Your task to perform on an android device: turn off priority inbox in the gmail app Image 0: 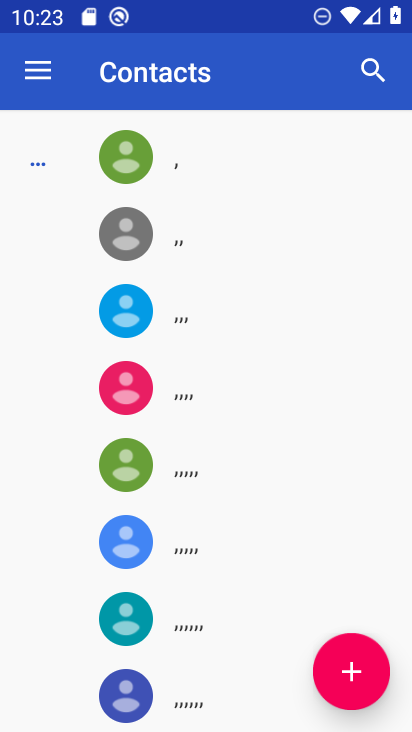
Step 0: press home button
Your task to perform on an android device: turn off priority inbox in the gmail app Image 1: 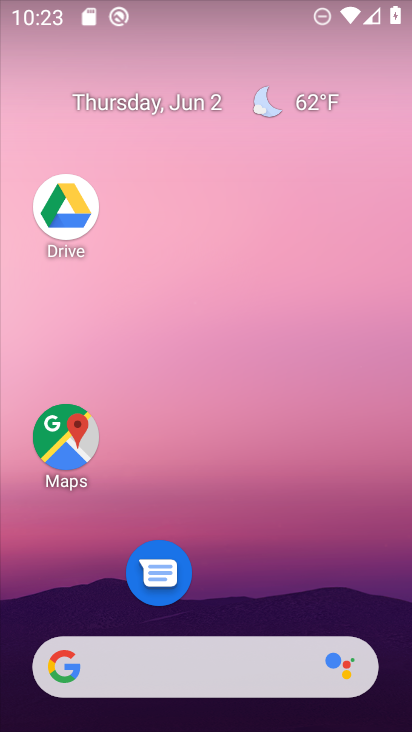
Step 1: drag from (217, 647) to (139, 36)
Your task to perform on an android device: turn off priority inbox in the gmail app Image 2: 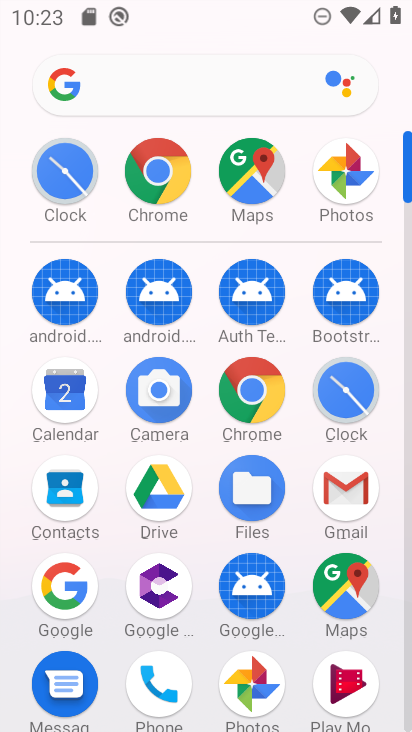
Step 2: click (355, 493)
Your task to perform on an android device: turn off priority inbox in the gmail app Image 3: 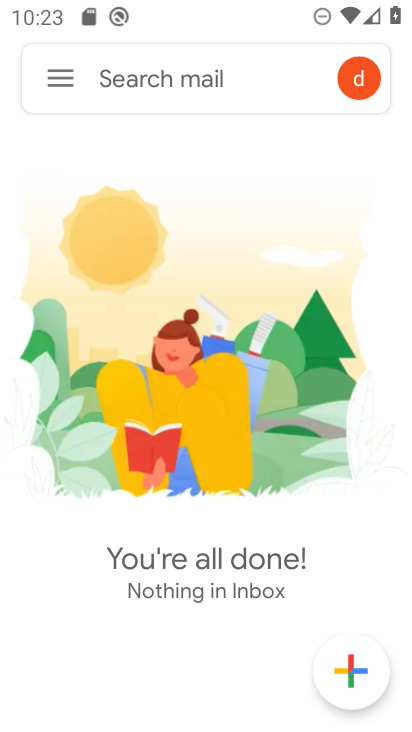
Step 3: click (54, 63)
Your task to perform on an android device: turn off priority inbox in the gmail app Image 4: 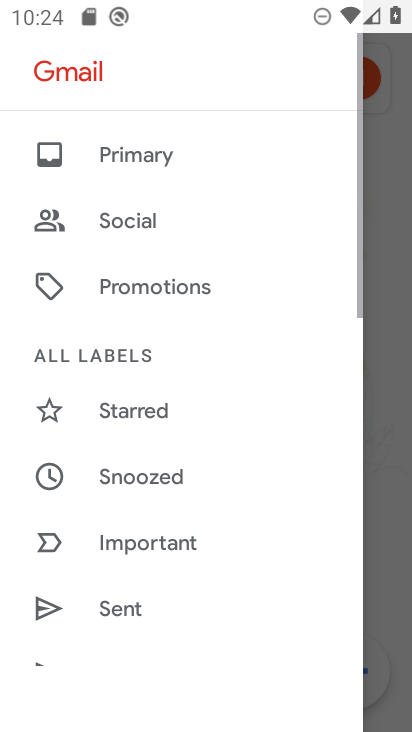
Step 4: drag from (193, 583) to (149, 69)
Your task to perform on an android device: turn off priority inbox in the gmail app Image 5: 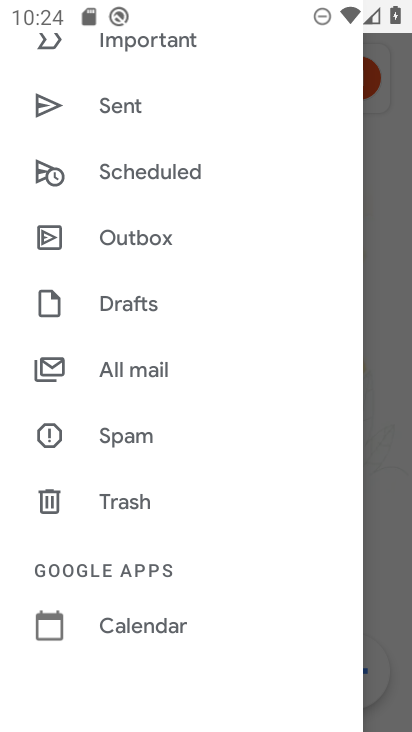
Step 5: drag from (128, 608) to (93, 84)
Your task to perform on an android device: turn off priority inbox in the gmail app Image 6: 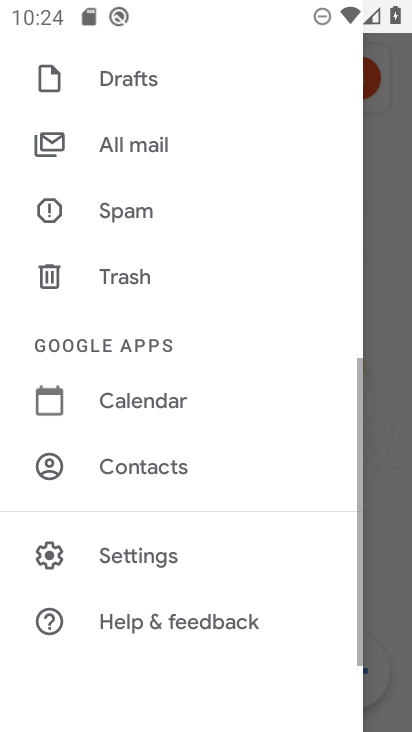
Step 6: click (122, 558)
Your task to perform on an android device: turn off priority inbox in the gmail app Image 7: 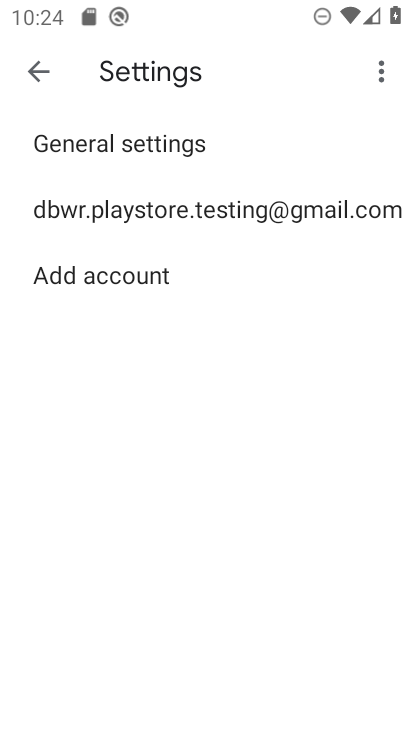
Step 7: click (125, 205)
Your task to perform on an android device: turn off priority inbox in the gmail app Image 8: 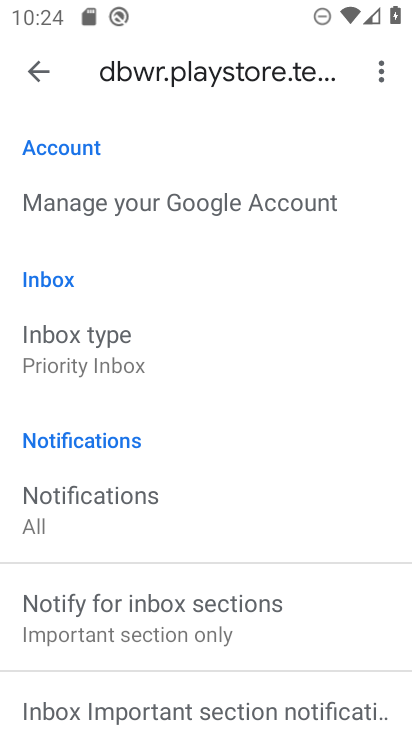
Step 8: click (80, 341)
Your task to perform on an android device: turn off priority inbox in the gmail app Image 9: 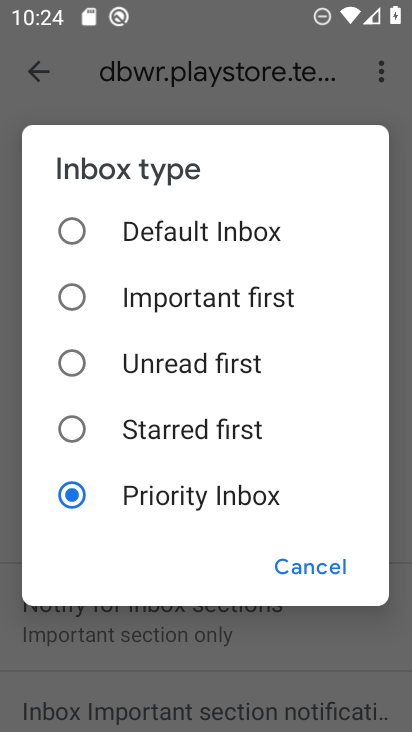
Step 9: click (85, 456)
Your task to perform on an android device: turn off priority inbox in the gmail app Image 10: 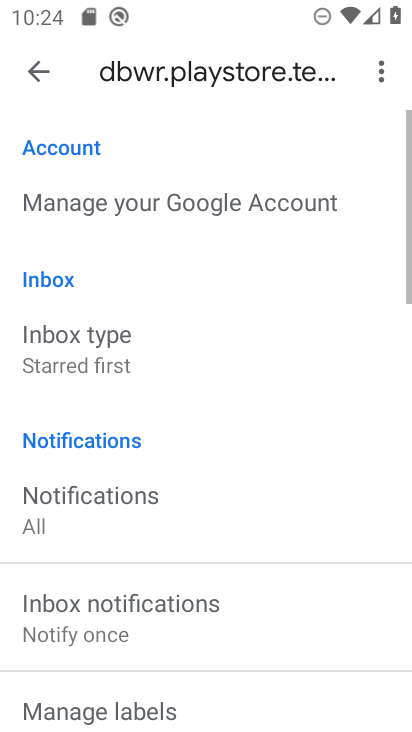
Step 10: task complete